Your task to perform on an android device: open a new tab in the chrome app Image 0: 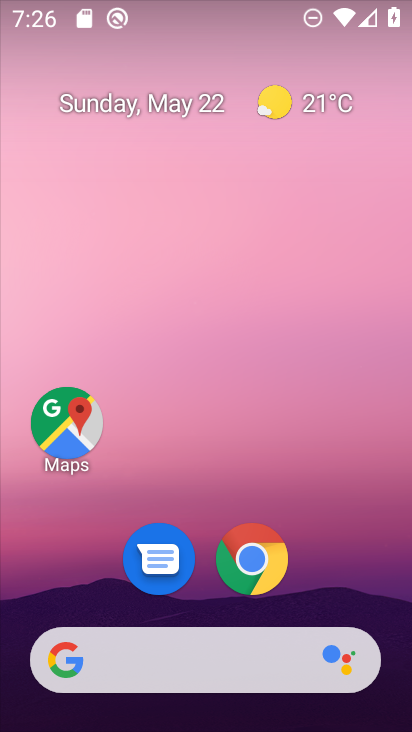
Step 0: press home button
Your task to perform on an android device: open a new tab in the chrome app Image 1: 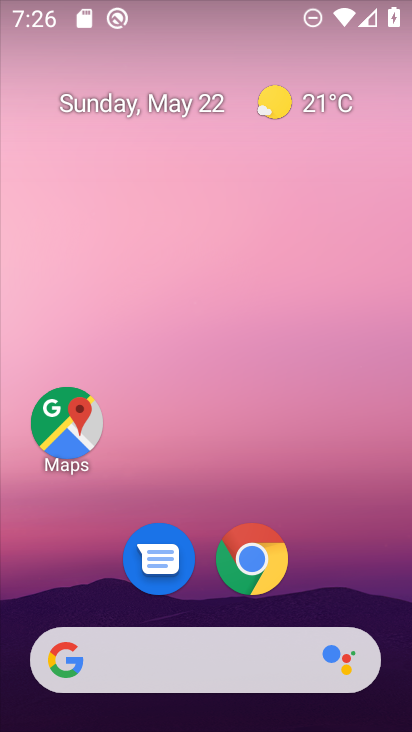
Step 1: drag from (299, 688) to (372, 150)
Your task to perform on an android device: open a new tab in the chrome app Image 2: 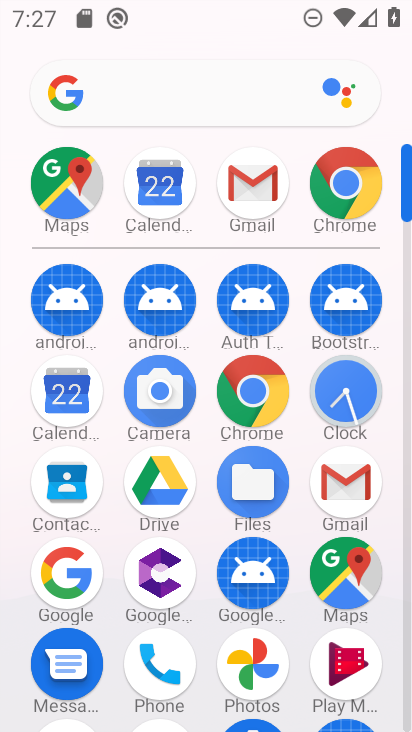
Step 2: click (361, 166)
Your task to perform on an android device: open a new tab in the chrome app Image 3: 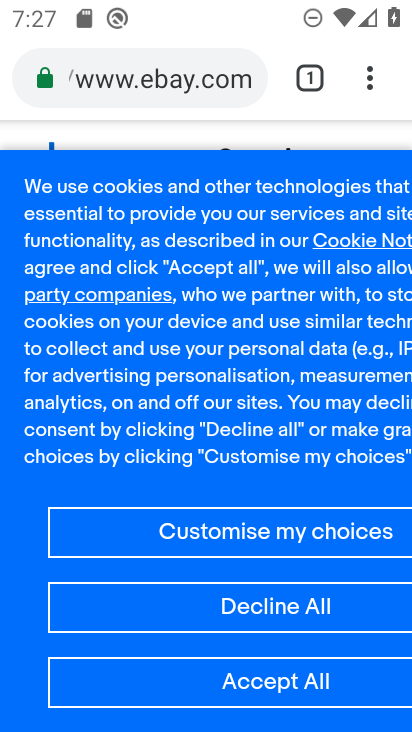
Step 3: click (315, 79)
Your task to perform on an android device: open a new tab in the chrome app Image 4: 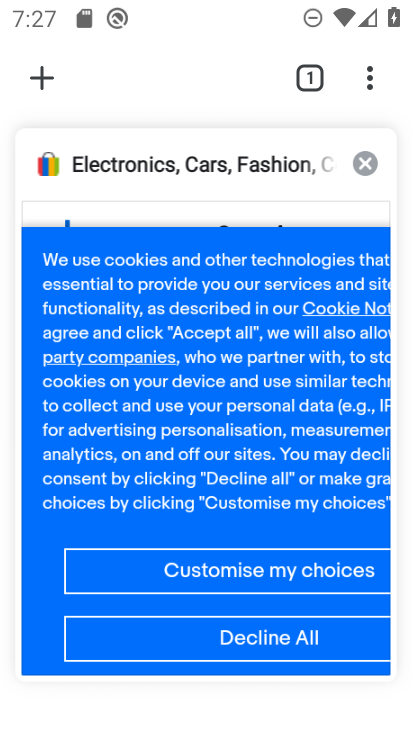
Step 4: click (380, 108)
Your task to perform on an android device: open a new tab in the chrome app Image 5: 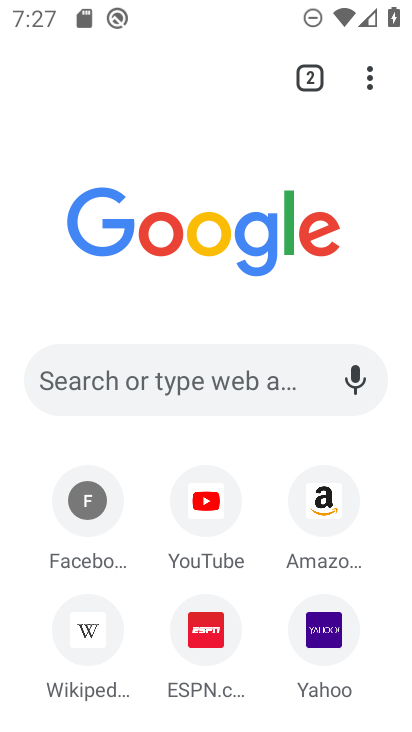
Step 5: task complete